Your task to perform on an android device: Open the Play Movies app and select the watchlist tab. Image 0: 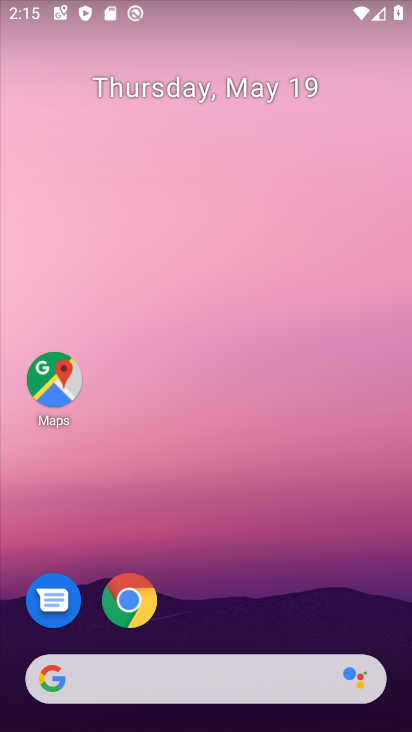
Step 0: drag from (176, 637) to (275, 209)
Your task to perform on an android device: Open the Play Movies app and select the watchlist tab. Image 1: 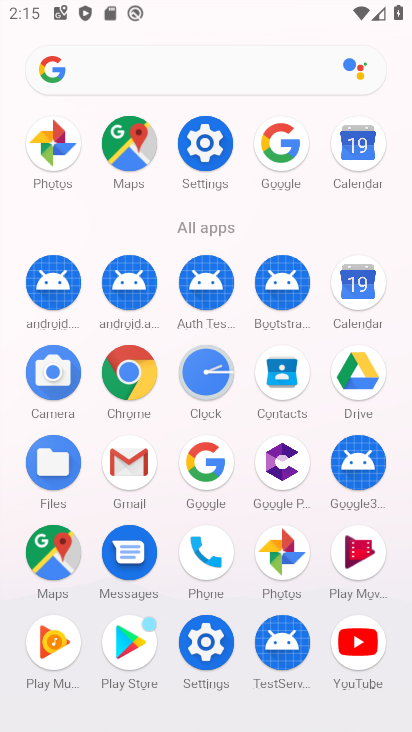
Step 1: click (359, 557)
Your task to perform on an android device: Open the Play Movies app and select the watchlist tab. Image 2: 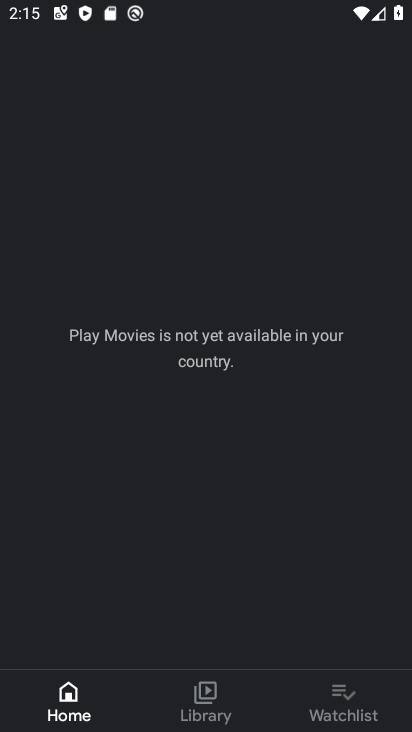
Step 2: click (329, 710)
Your task to perform on an android device: Open the Play Movies app and select the watchlist tab. Image 3: 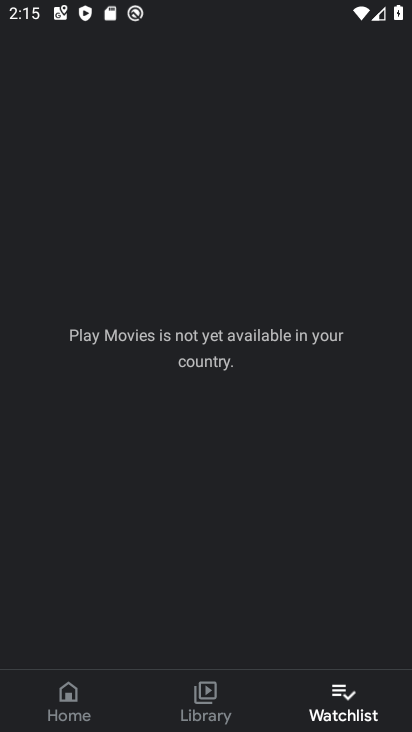
Step 3: task complete